Your task to perform on an android device: see tabs open on other devices in the chrome app Image 0: 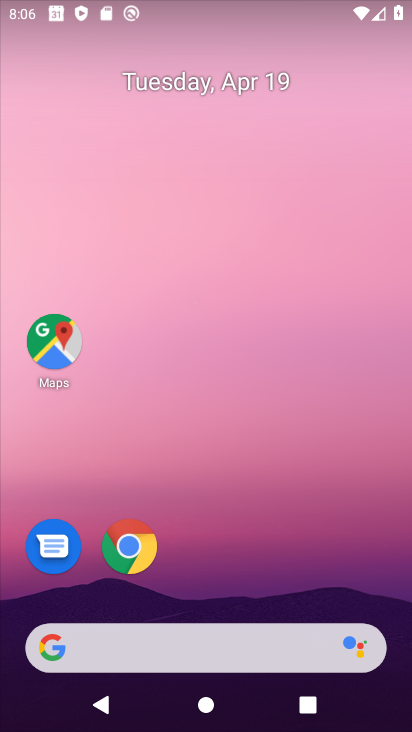
Step 0: click (139, 544)
Your task to perform on an android device: see tabs open on other devices in the chrome app Image 1: 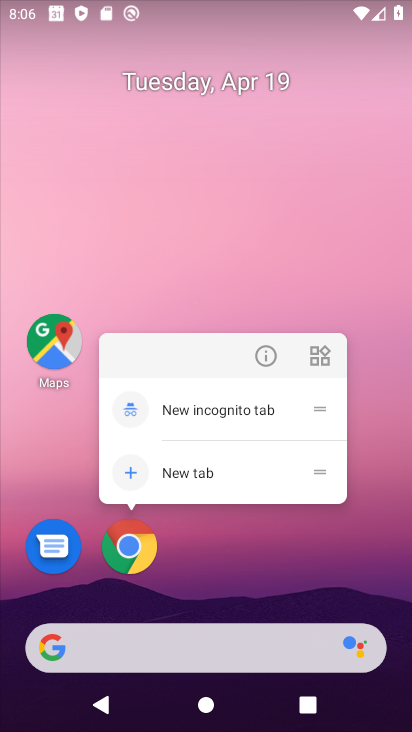
Step 1: click (303, 210)
Your task to perform on an android device: see tabs open on other devices in the chrome app Image 2: 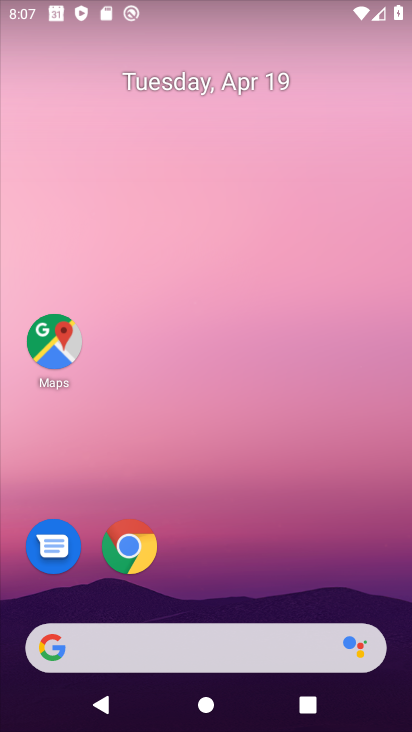
Step 2: click (120, 540)
Your task to perform on an android device: see tabs open on other devices in the chrome app Image 3: 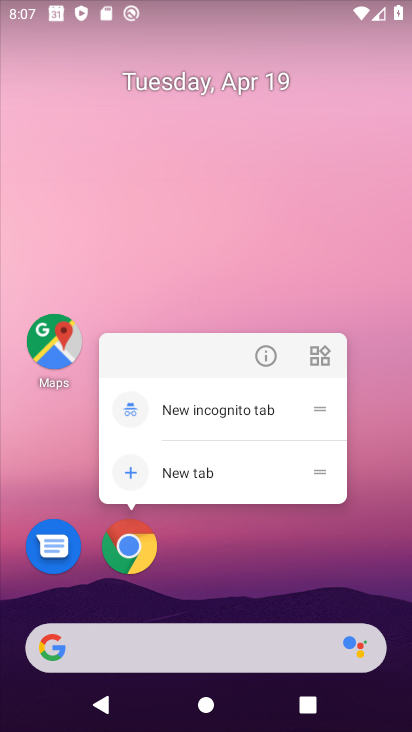
Step 3: click (201, 199)
Your task to perform on an android device: see tabs open on other devices in the chrome app Image 4: 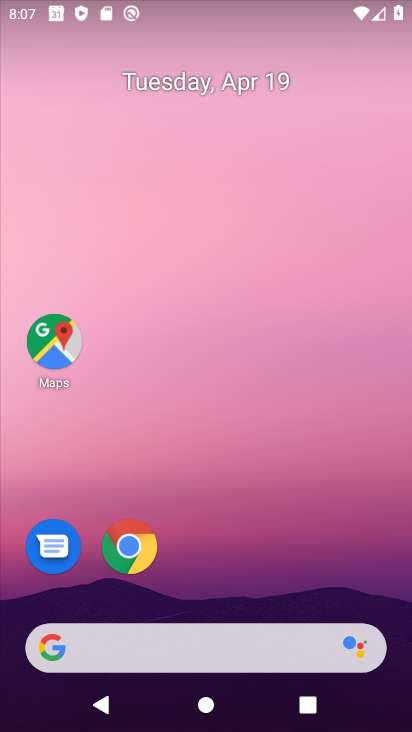
Step 4: click (257, 538)
Your task to perform on an android device: see tabs open on other devices in the chrome app Image 5: 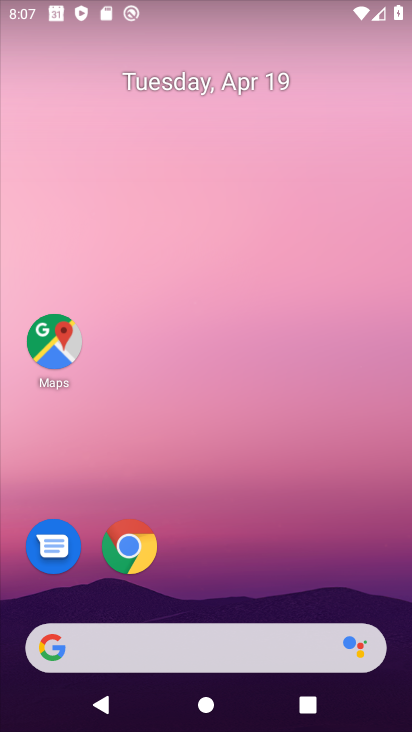
Step 5: click (117, 545)
Your task to perform on an android device: see tabs open on other devices in the chrome app Image 6: 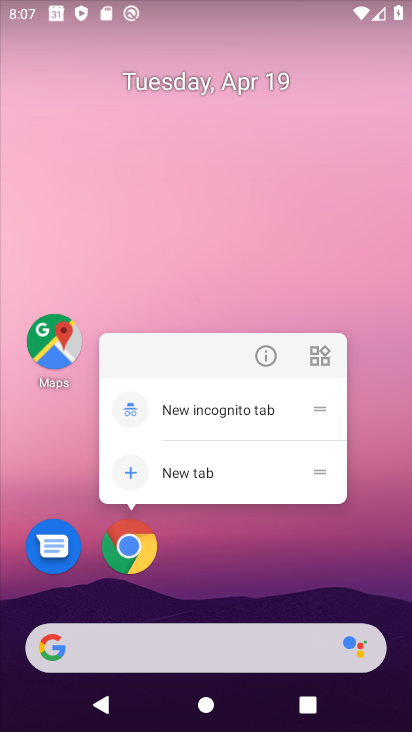
Step 6: click (126, 541)
Your task to perform on an android device: see tabs open on other devices in the chrome app Image 7: 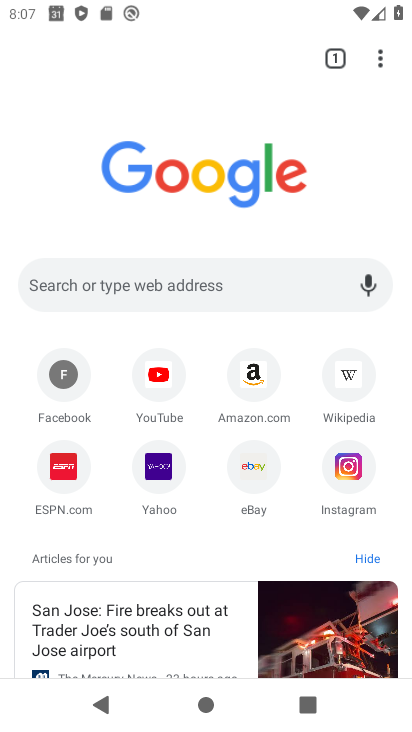
Step 7: click (378, 56)
Your task to perform on an android device: see tabs open on other devices in the chrome app Image 8: 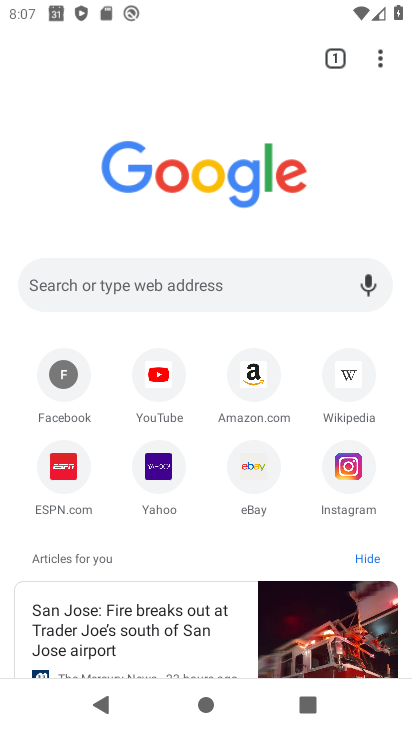
Step 8: click (335, 65)
Your task to perform on an android device: see tabs open on other devices in the chrome app Image 9: 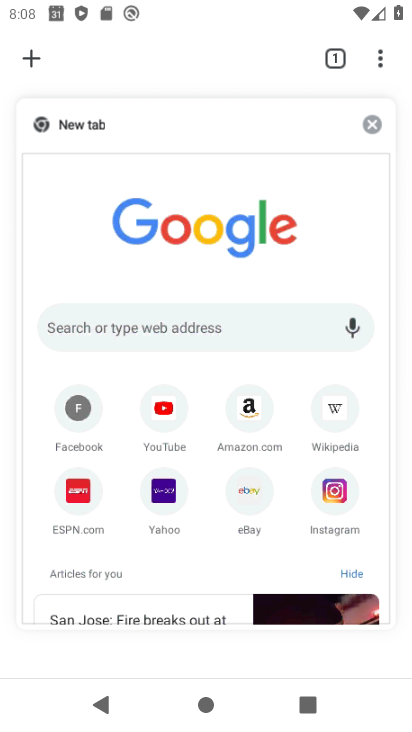
Step 9: task complete